Your task to perform on an android device: turn pop-ups on in chrome Image 0: 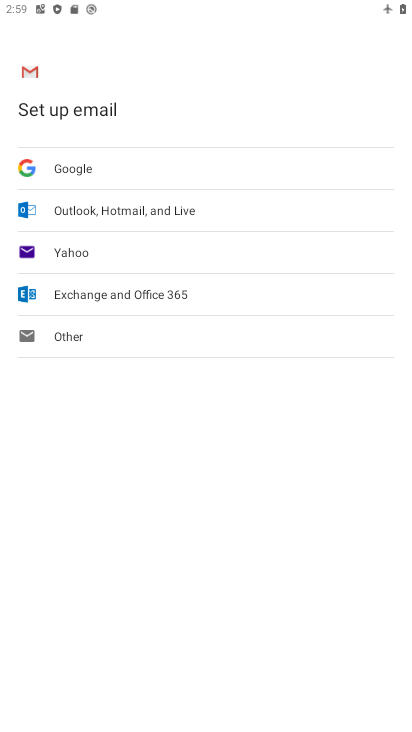
Step 0: press home button
Your task to perform on an android device: turn pop-ups on in chrome Image 1: 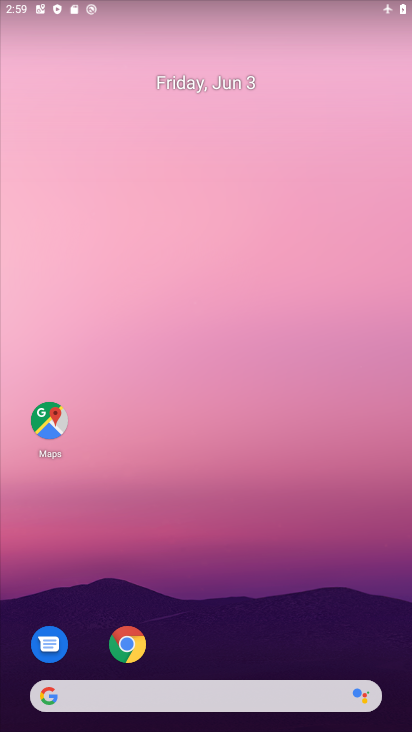
Step 1: click (116, 643)
Your task to perform on an android device: turn pop-ups on in chrome Image 2: 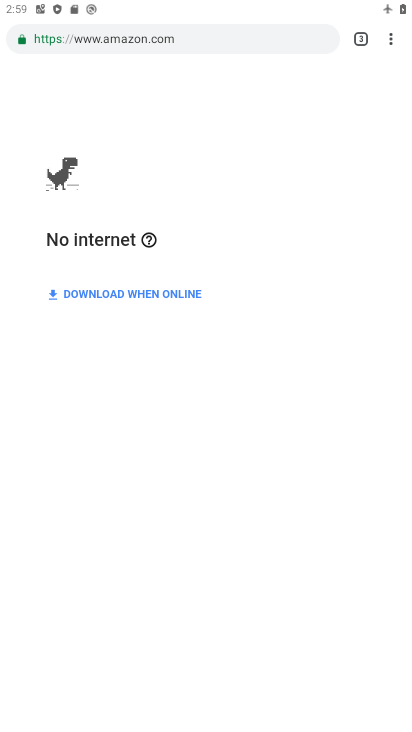
Step 2: click (390, 34)
Your task to perform on an android device: turn pop-ups on in chrome Image 3: 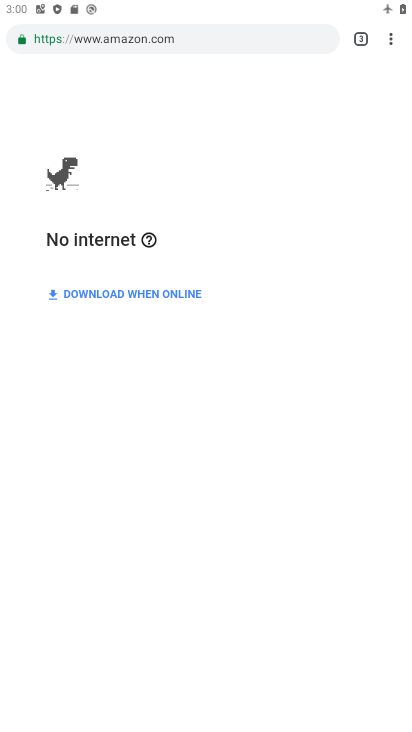
Step 3: click (390, 38)
Your task to perform on an android device: turn pop-ups on in chrome Image 4: 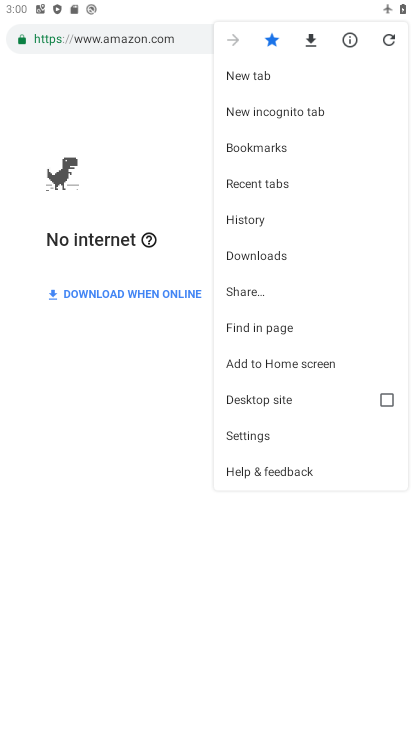
Step 4: click (230, 429)
Your task to perform on an android device: turn pop-ups on in chrome Image 5: 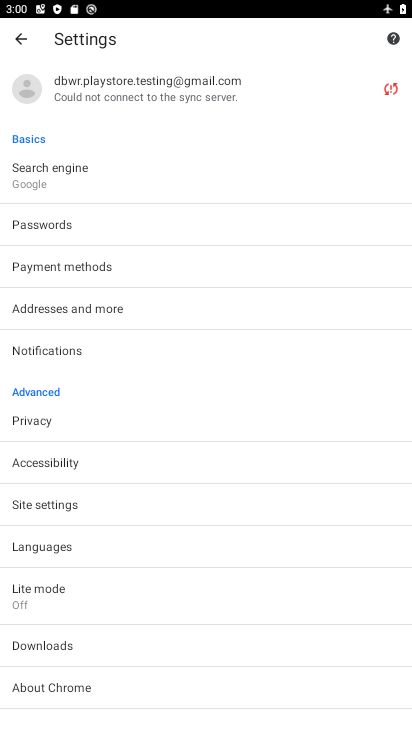
Step 5: click (122, 503)
Your task to perform on an android device: turn pop-ups on in chrome Image 6: 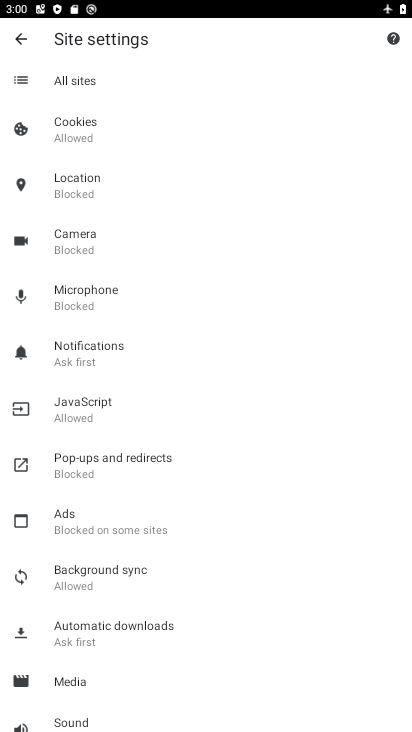
Step 6: click (190, 449)
Your task to perform on an android device: turn pop-ups on in chrome Image 7: 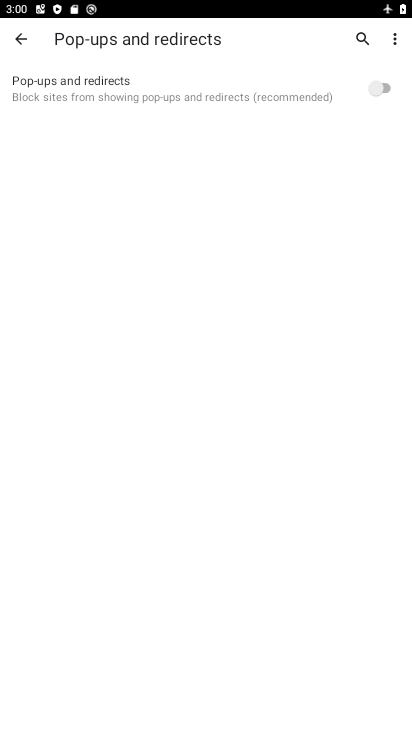
Step 7: click (370, 93)
Your task to perform on an android device: turn pop-ups on in chrome Image 8: 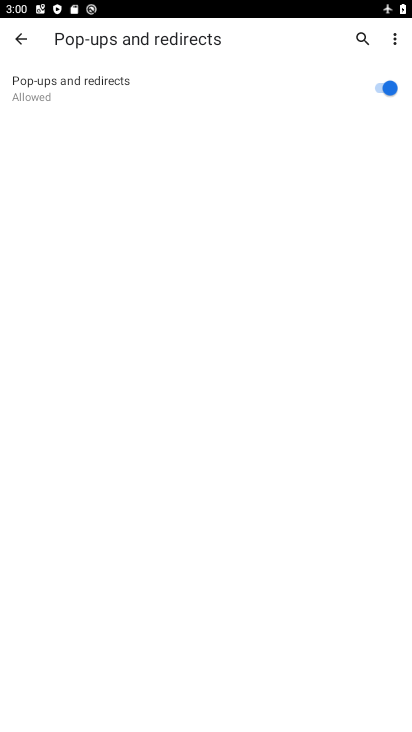
Step 8: task complete